Your task to perform on an android device: What's on my calendar today? Image 0: 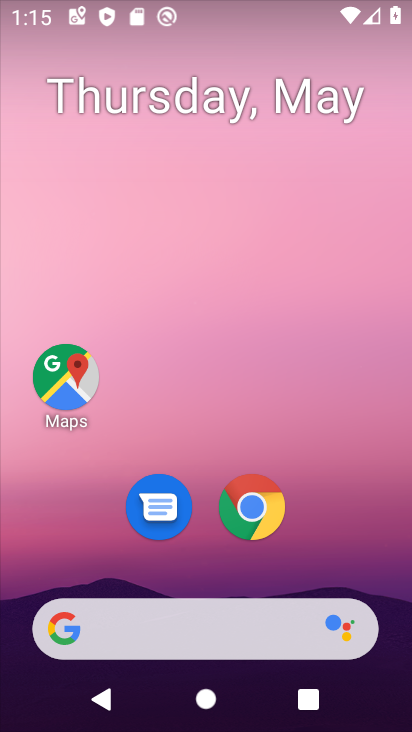
Step 0: drag from (303, 611) to (221, 199)
Your task to perform on an android device: What's on my calendar today? Image 1: 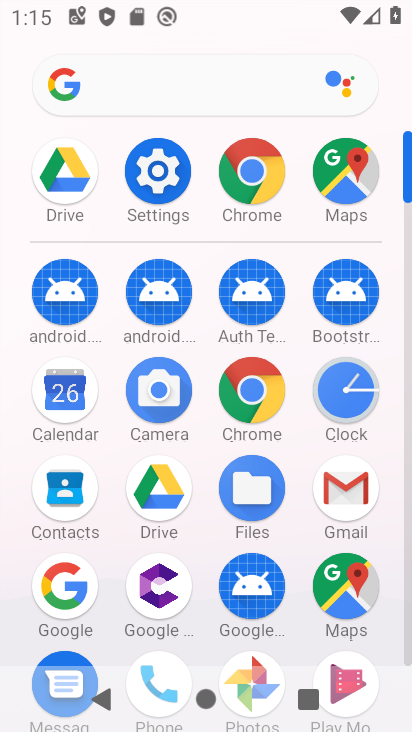
Step 1: click (77, 378)
Your task to perform on an android device: What's on my calendar today? Image 2: 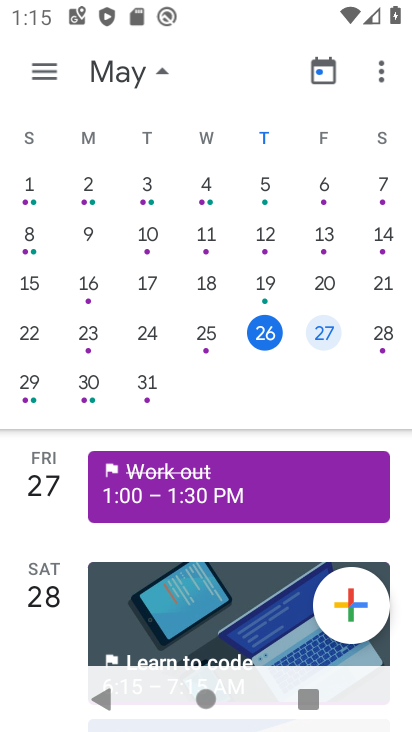
Step 2: task complete